Your task to perform on an android device: allow notifications from all sites in the chrome app Image 0: 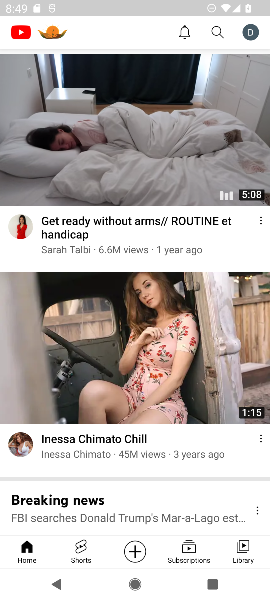
Step 0: press home button
Your task to perform on an android device: allow notifications from all sites in the chrome app Image 1: 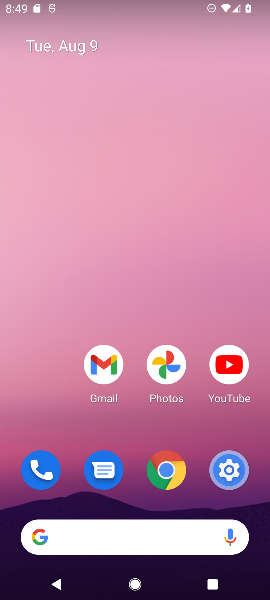
Step 1: click (167, 471)
Your task to perform on an android device: allow notifications from all sites in the chrome app Image 2: 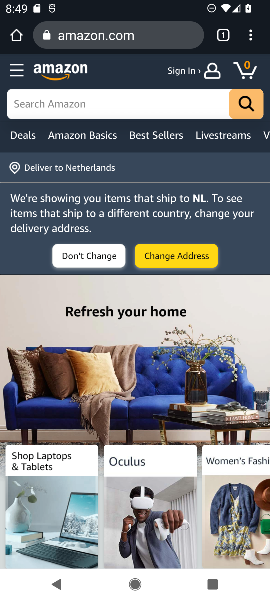
Step 2: click (251, 37)
Your task to perform on an android device: allow notifications from all sites in the chrome app Image 3: 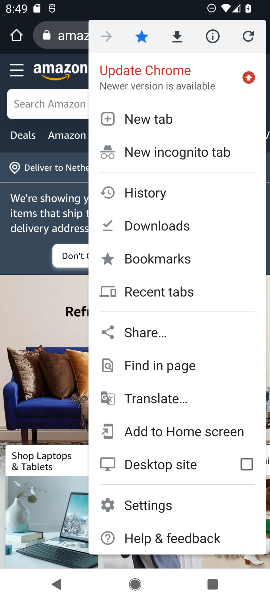
Step 3: click (151, 509)
Your task to perform on an android device: allow notifications from all sites in the chrome app Image 4: 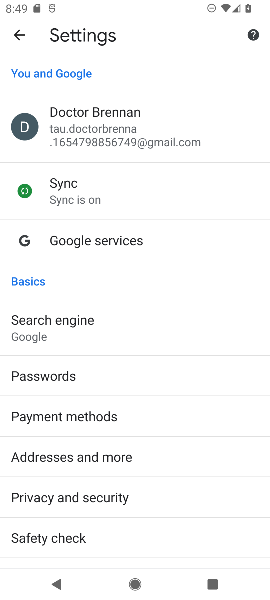
Step 4: drag from (108, 524) to (140, 445)
Your task to perform on an android device: allow notifications from all sites in the chrome app Image 5: 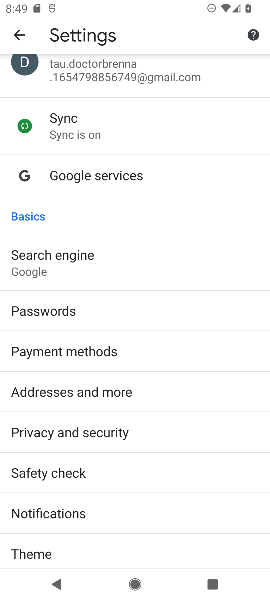
Step 5: drag from (98, 527) to (125, 466)
Your task to perform on an android device: allow notifications from all sites in the chrome app Image 6: 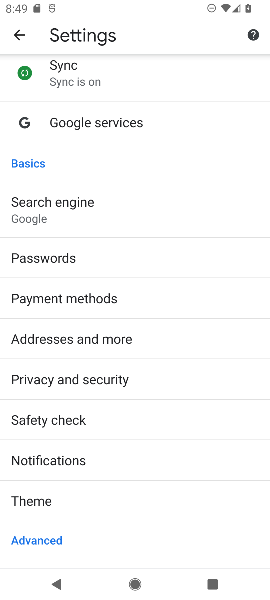
Step 6: click (69, 463)
Your task to perform on an android device: allow notifications from all sites in the chrome app Image 7: 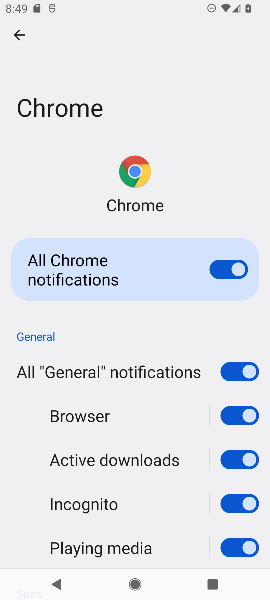
Step 7: task complete